Your task to perform on an android device: Go to Amazon Image 0: 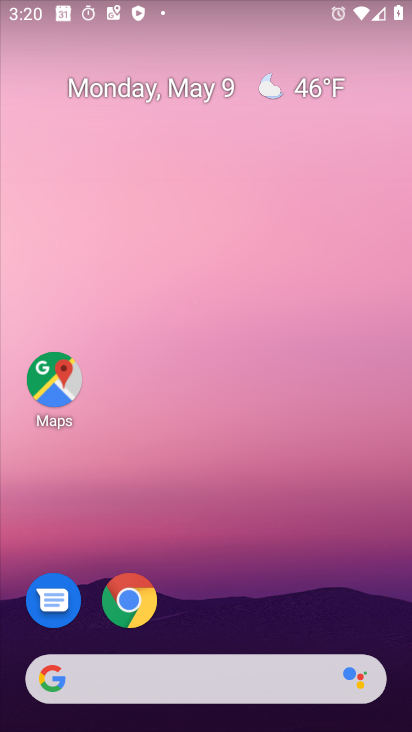
Step 0: click (125, 605)
Your task to perform on an android device: Go to Amazon Image 1: 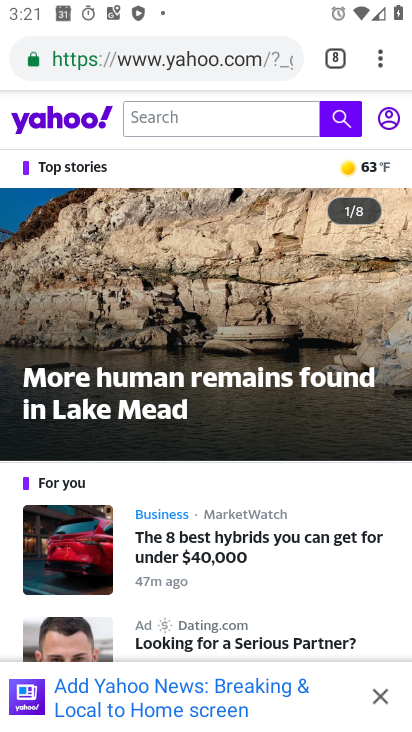
Step 1: click (326, 63)
Your task to perform on an android device: Go to Amazon Image 2: 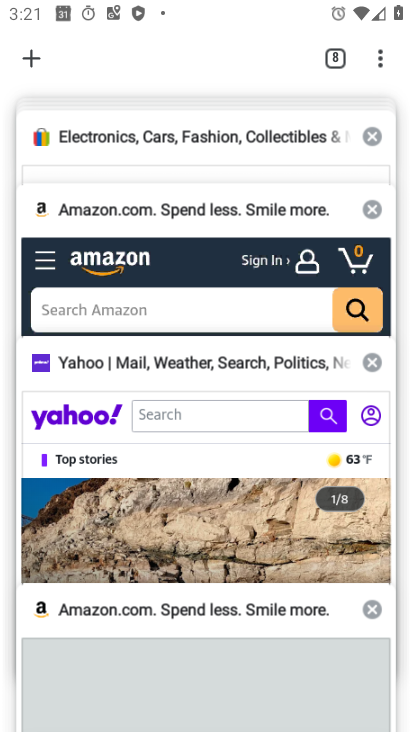
Step 2: click (114, 200)
Your task to perform on an android device: Go to Amazon Image 3: 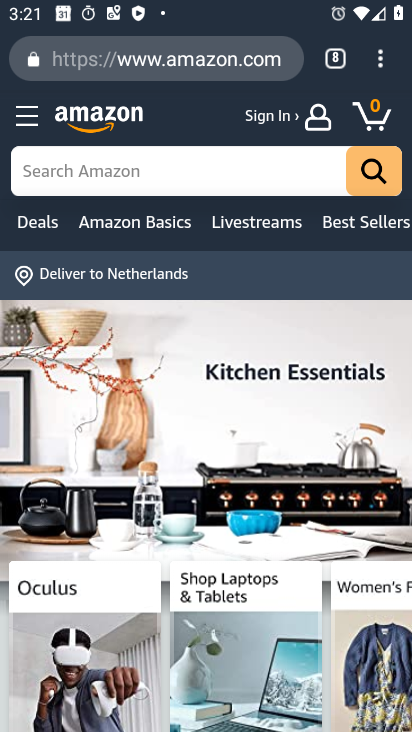
Step 3: task complete